Your task to perform on an android device: toggle notification dots Image 0: 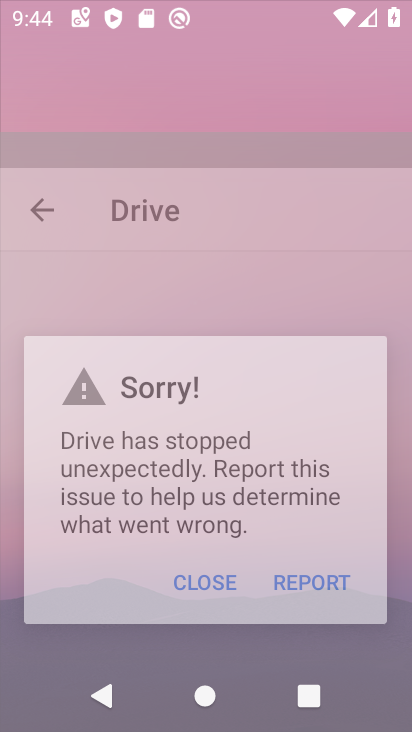
Step 0: click (39, 74)
Your task to perform on an android device: toggle notification dots Image 1: 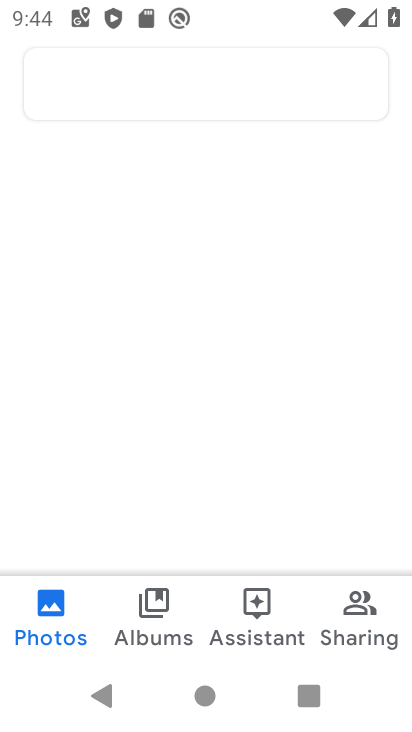
Step 1: press back button
Your task to perform on an android device: toggle notification dots Image 2: 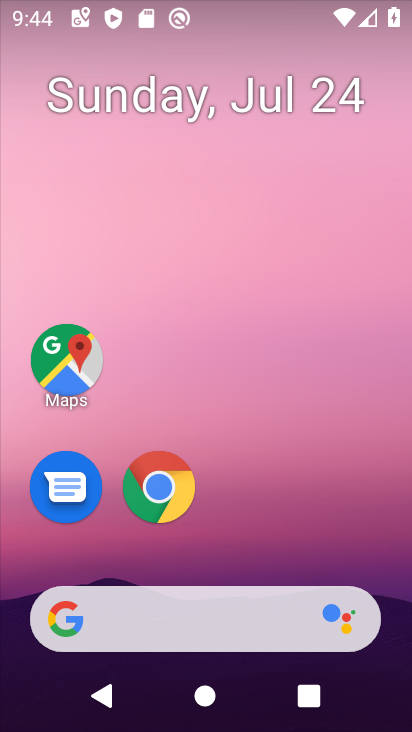
Step 2: click (252, 19)
Your task to perform on an android device: toggle notification dots Image 3: 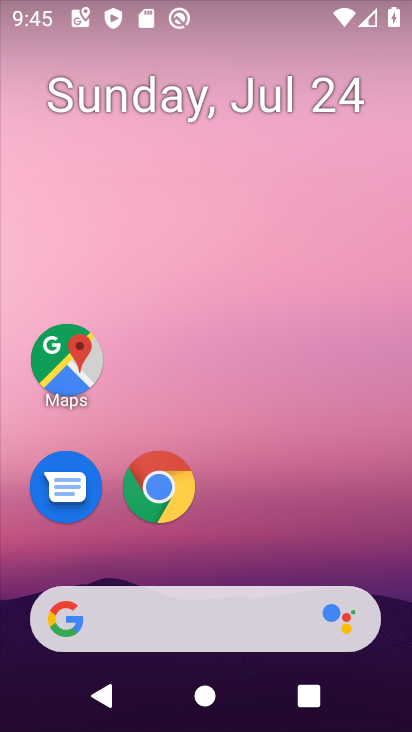
Step 3: drag from (311, 555) to (271, 0)
Your task to perform on an android device: toggle notification dots Image 4: 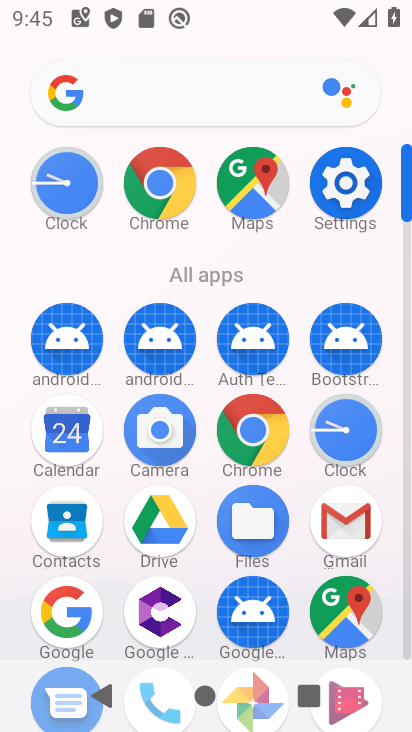
Step 4: click (334, 189)
Your task to perform on an android device: toggle notification dots Image 5: 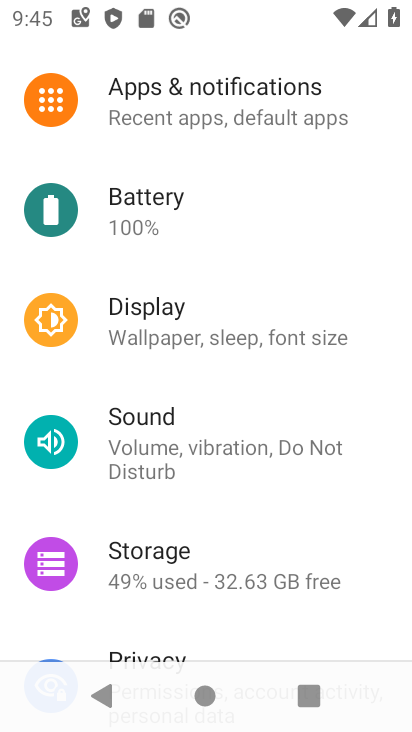
Step 5: click (211, 97)
Your task to perform on an android device: toggle notification dots Image 6: 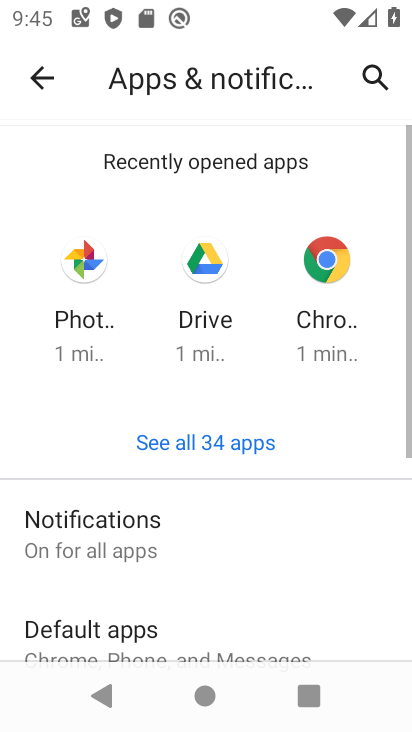
Step 6: click (189, 531)
Your task to perform on an android device: toggle notification dots Image 7: 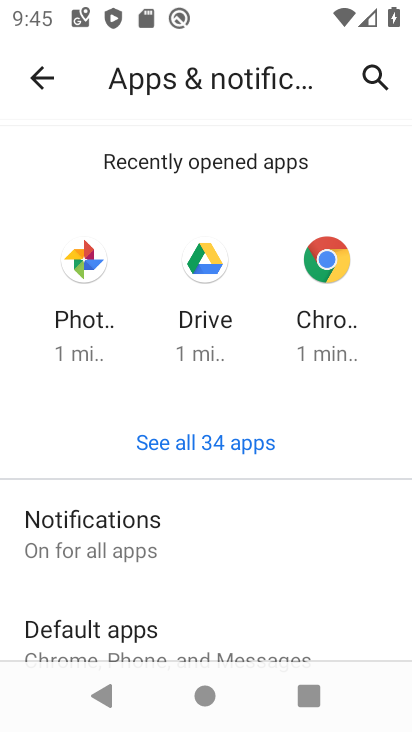
Step 7: drag from (179, 543) to (284, 80)
Your task to perform on an android device: toggle notification dots Image 8: 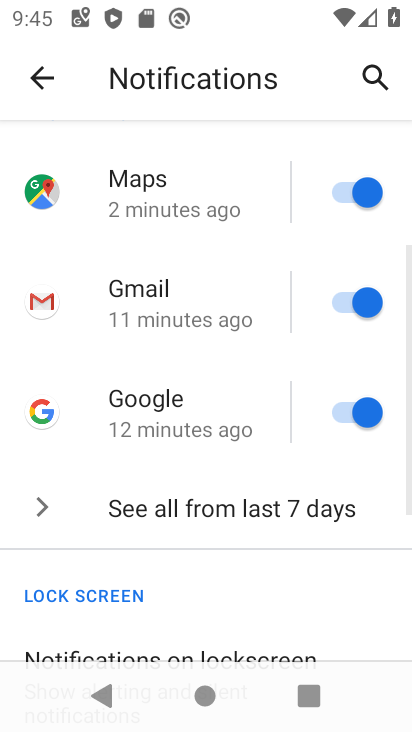
Step 8: drag from (184, 597) to (252, 27)
Your task to perform on an android device: toggle notification dots Image 9: 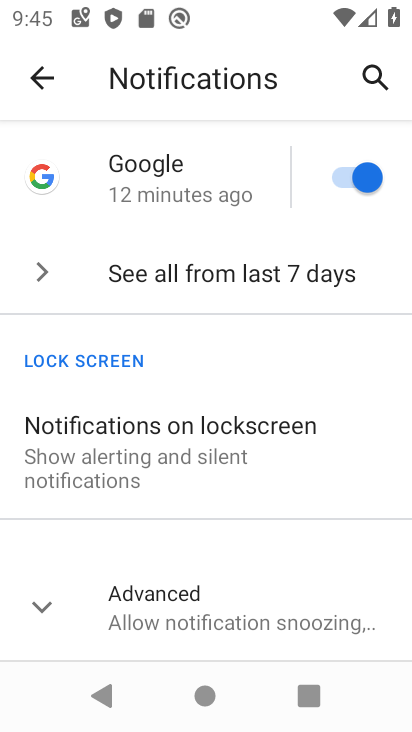
Step 9: click (154, 614)
Your task to perform on an android device: toggle notification dots Image 10: 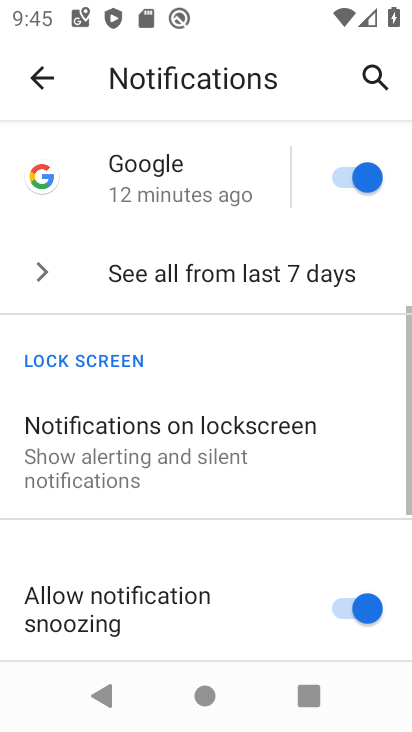
Step 10: drag from (188, 562) to (269, 87)
Your task to perform on an android device: toggle notification dots Image 11: 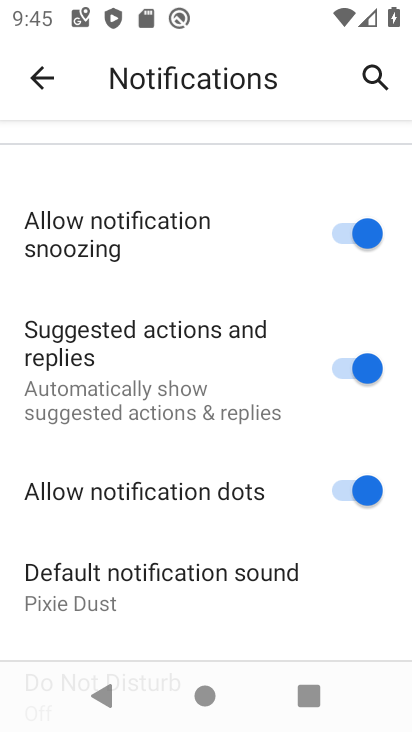
Step 11: click (360, 487)
Your task to perform on an android device: toggle notification dots Image 12: 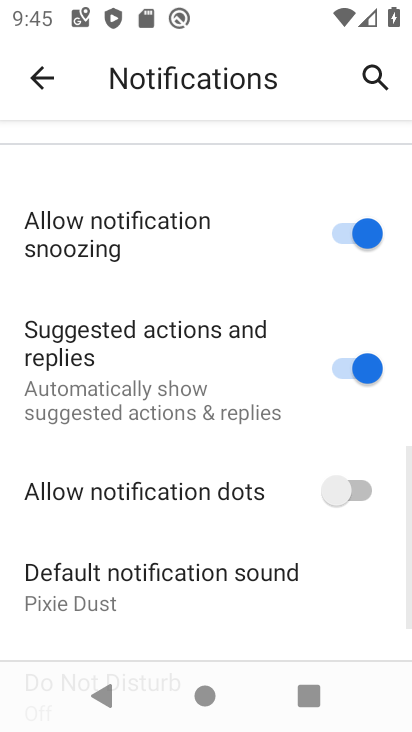
Step 12: task complete